Your task to perform on an android device: Open the web browser Image 0: 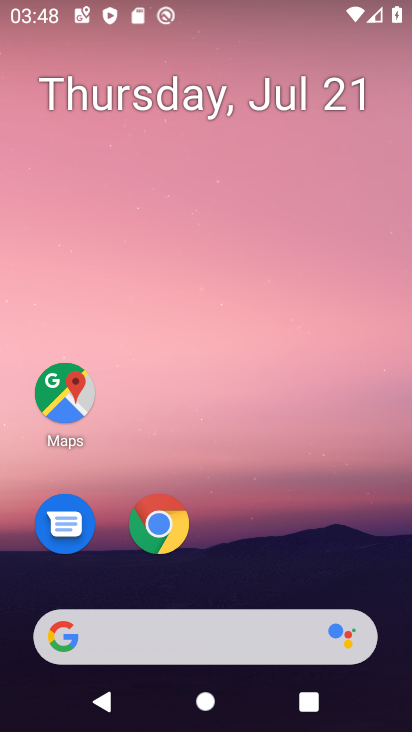
Step 0: click (185, 637)
Your task to perform on an android device: Open the web browser Image 1: 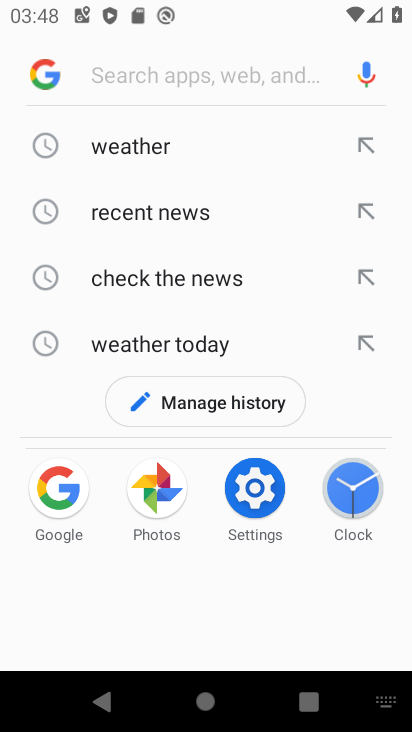
Step 1: task complete